Your task to perform on an android device: Is it going to rain tomorrow? Image 0: 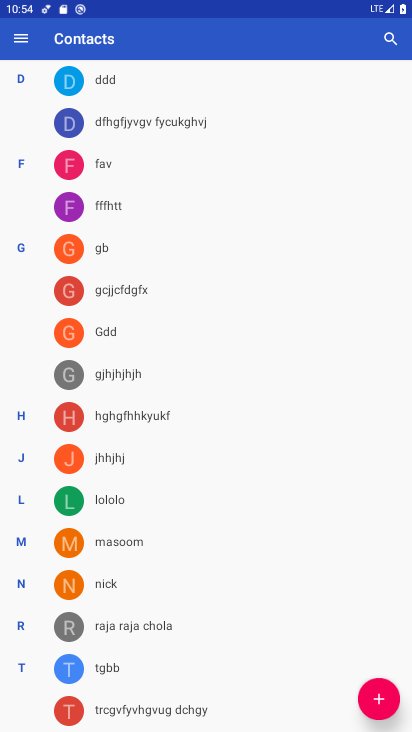
Step 0: press home button
Your task to perform on an android device: Is it going to rain tomorrow? Image 1: 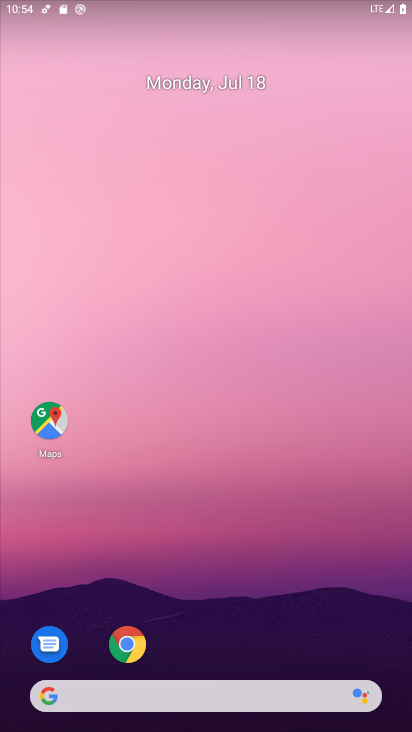
Step 1: click (227, 695)
Your task to perform on an android device: Is it going to rain tomorrow? Image 2: 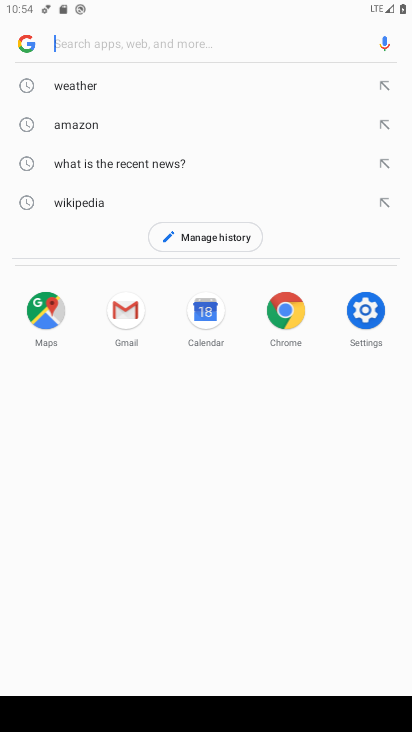
Step 2: click (103, 86)
Your task to perform on an android device: Is it going to rain tomorrow? Image 3: 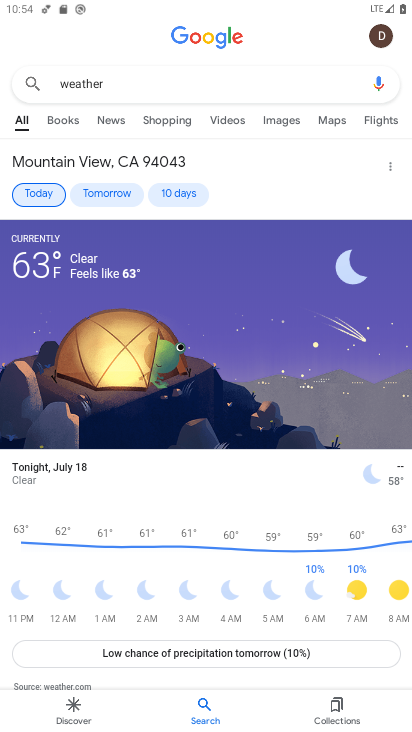
Step 3: click (119, 196)
Your task to perform on an android device: Is it going to rain tomorrow? Image 4: 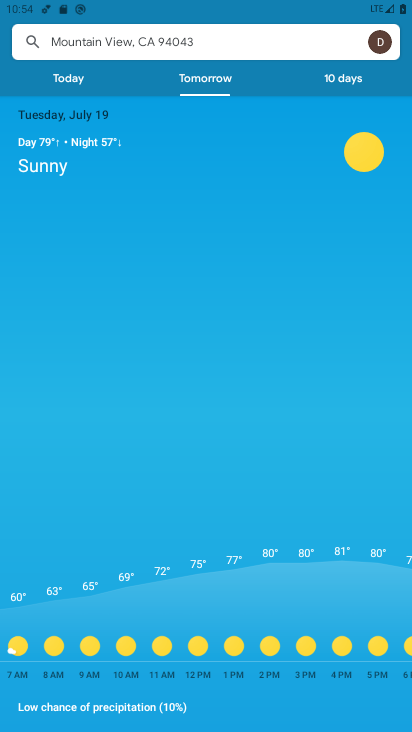
Step 4: task complete